Your task to perform on an android device: Go to ESPN.com Image 0: 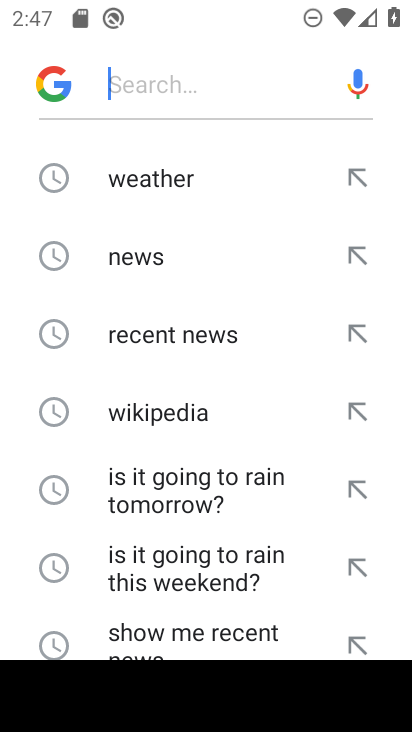
Step 0: press home button
Your task to perform on an android device: Go to ESPN.com Image 1: 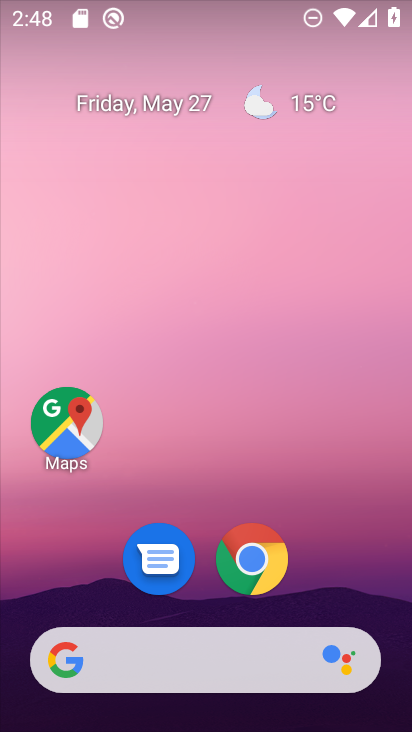
Step 1: drag from (140, 707) to (165, 263)
Your task to perform on an android device: Go to ESPN.com Image 2: 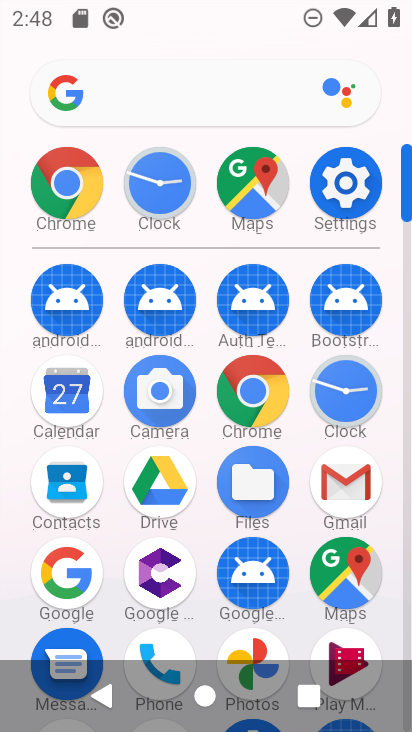
Step 2: click (262, 404)
Your task to perform on an android device: Go to ESPN.com Image 3: 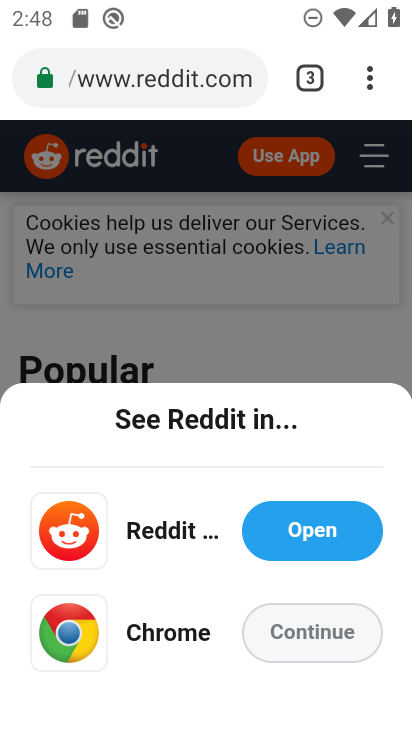
Step 3: click (203, 78)
Your task to perform on an android device: Go to ESPN.com Image 4: 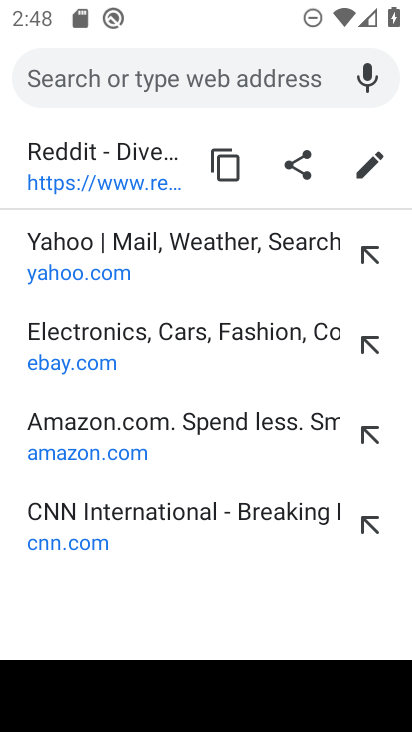
Step 4: click (142, 355)
Your task to perform on an android device: Go to ESPN.com Image 5: 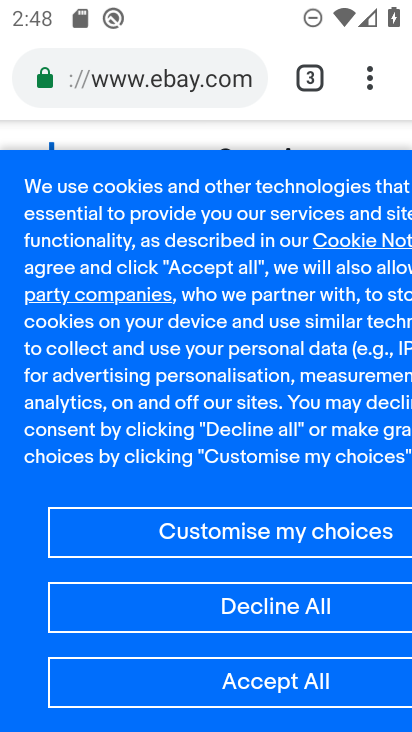
Step 5: task complete